Your task to perform on an android device: Open display settings Image 0: 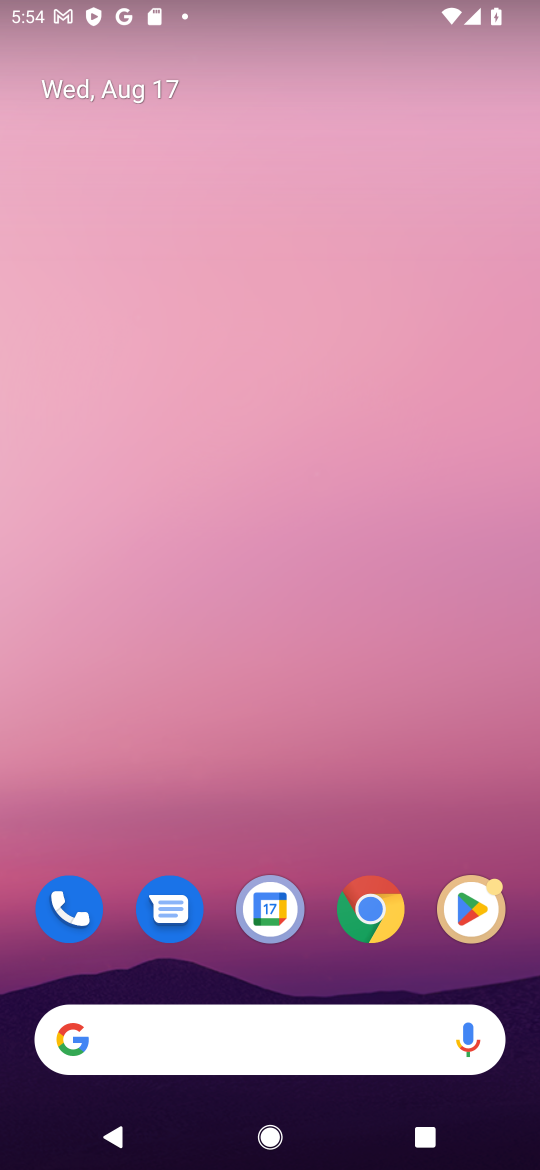
Step 0: drag from (272, 967) to (390, 31)
Your task to perform on an android device: Open display settings Image 1: 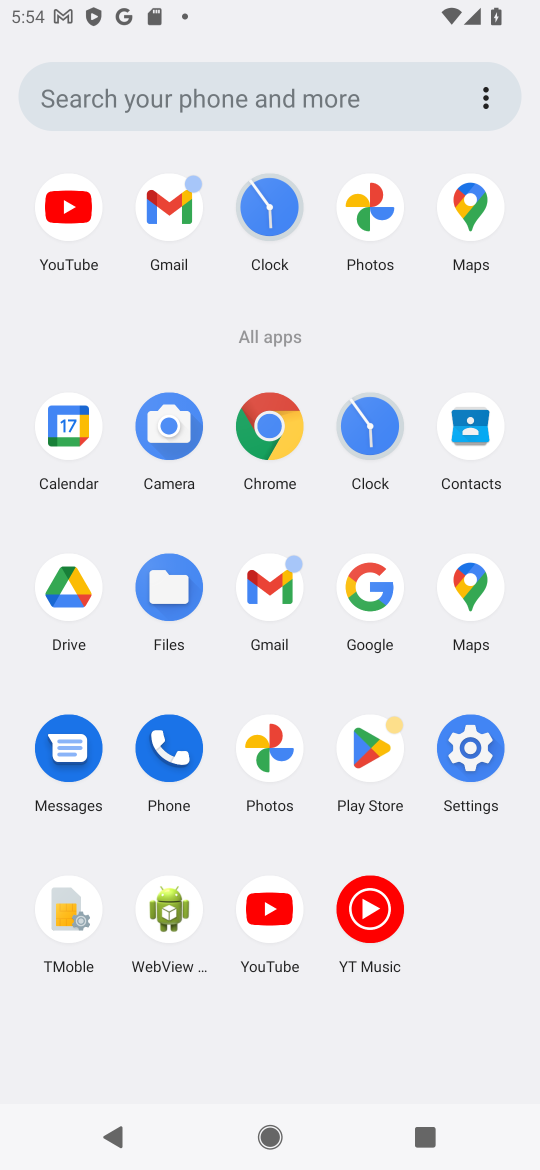
Step 1: click (480, 746)
Your task to perform on an android device: Open display settings Image 2: 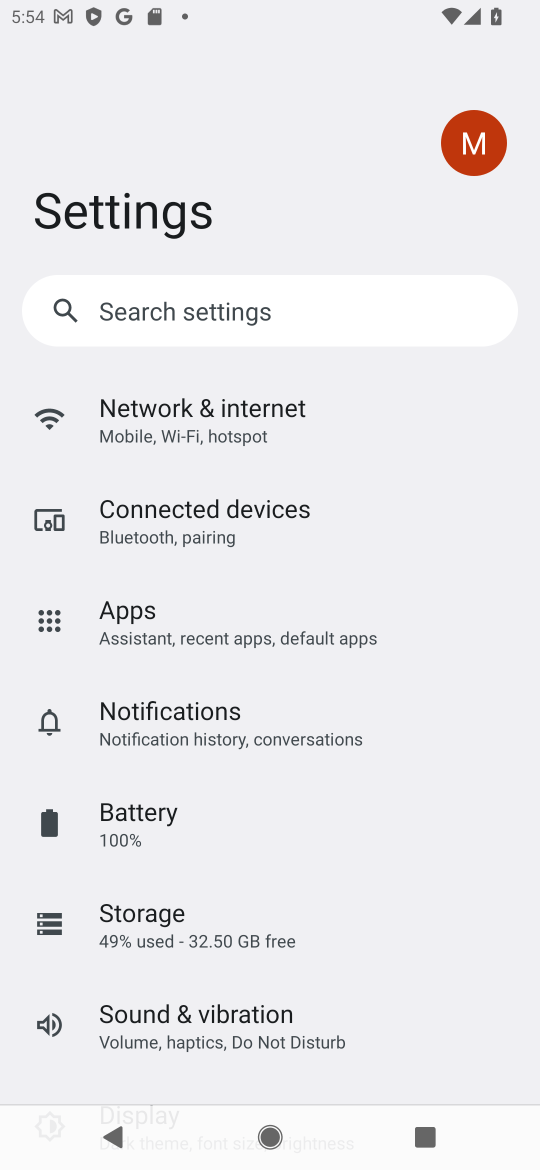
Step 2: drag from (221, 818) to (273, 322)
Your task to perform on an android device: Open display settings Image 3: 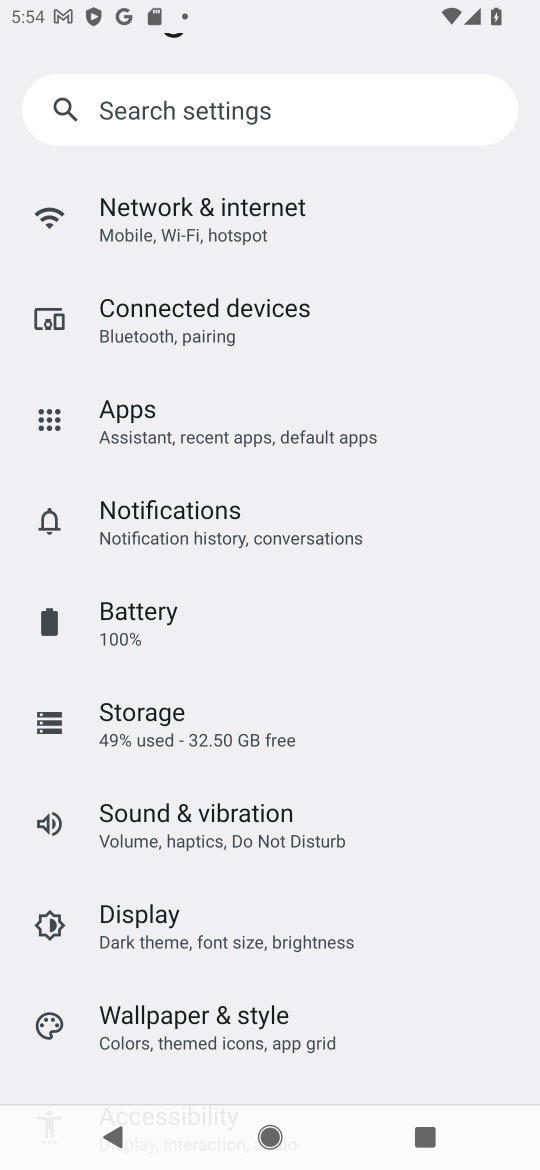
Step 3: click (170, 930)
Your task to perform on an android device: Open display settings Image 4: 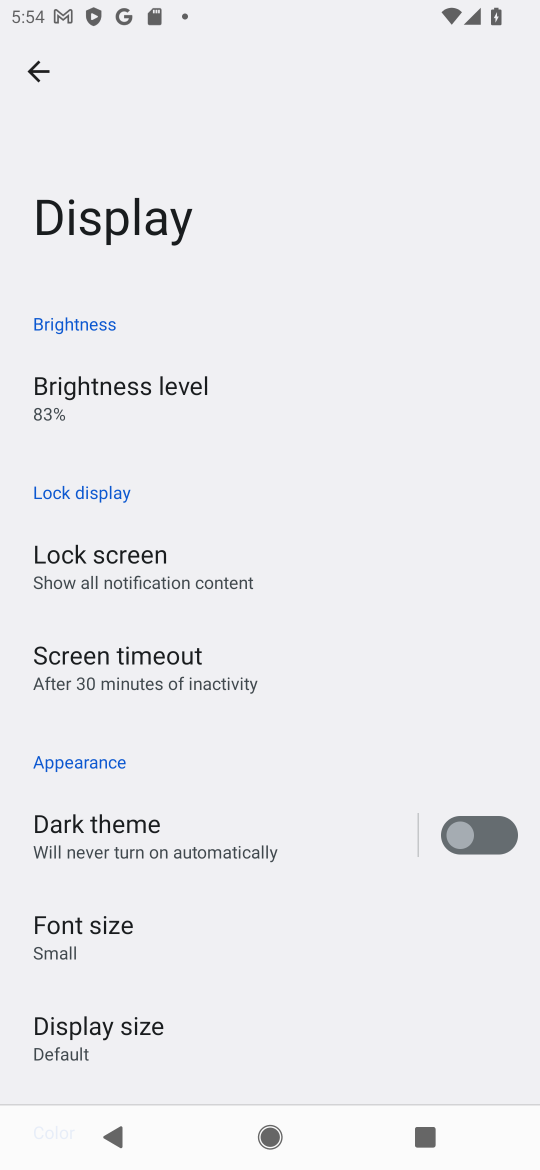
Step 4: task complete